Your task to perform on an android device: Open Youtube and go to "Your channel" Image 0: 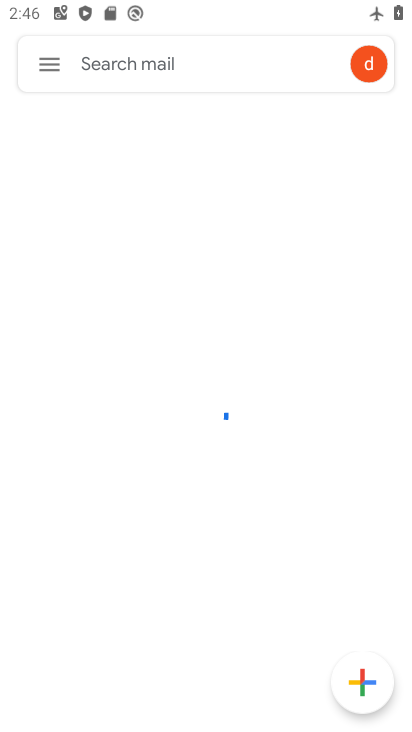
Step 0: drag from (384, 3) to (384, 256)
Your task to perform on an android device: Open Youtube and go to "Your channel" Image 1: 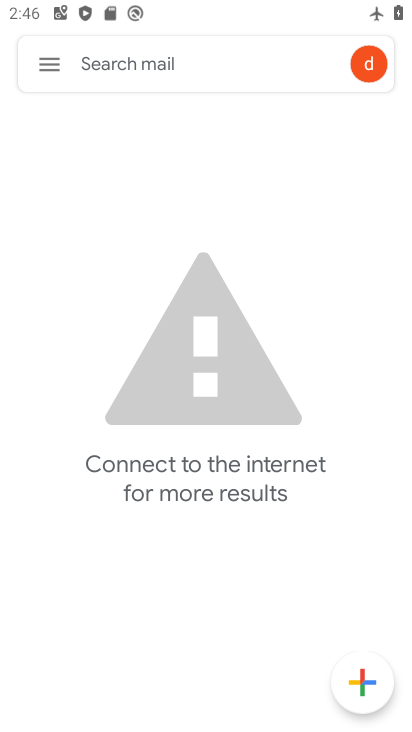
Step 1: drag from (377, 3) to (270, 624)
Your task to perform on an android device: Open Youtube and go to "Your channel" Image 2: 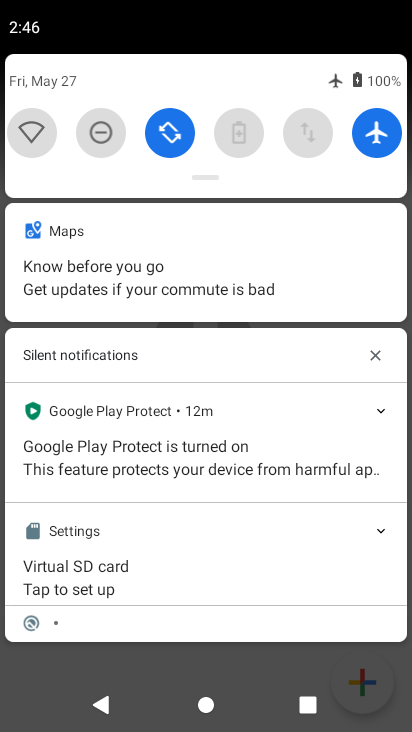
Step 2: click (362, 133)
Your task to perform on an android device: Open Youtube and go to "Your channel" Image 3: 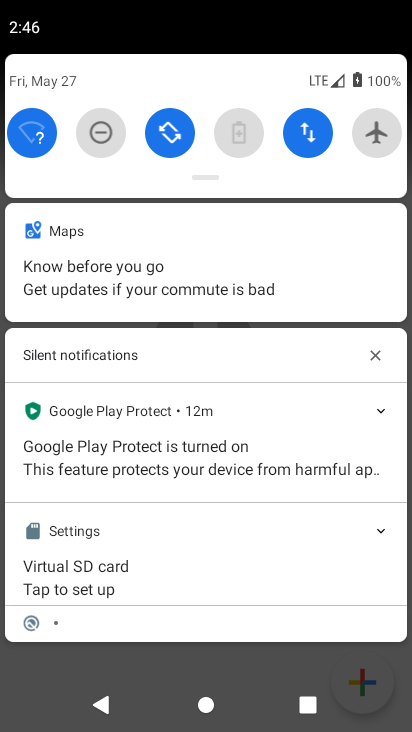
Step 3: press home button
Your task to perform on an android device: Open Youtube and go to "Your channel" Image 4: 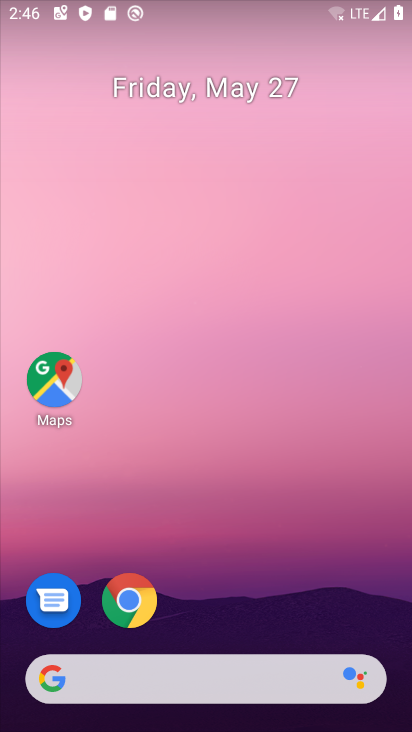
Step 4: drag from (275, 504) to (224, 95)
Your task to perform on an android device: Open Youtube and go to "Your channel" Image 5: 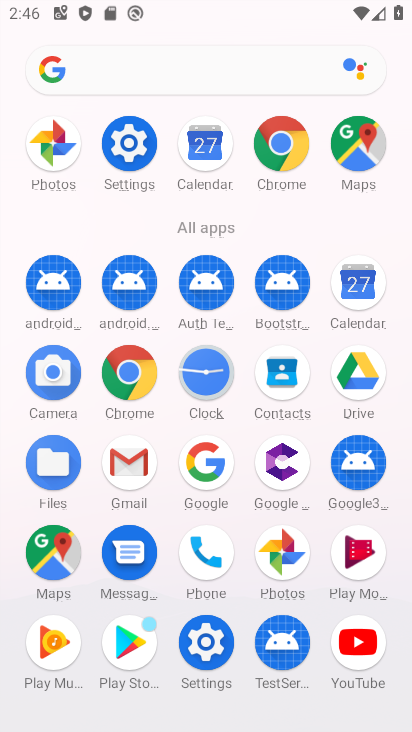
Step 5: click (374, 649)
Your task to perform on an android device: Open Youtube and go to "Your channel" Image 6: 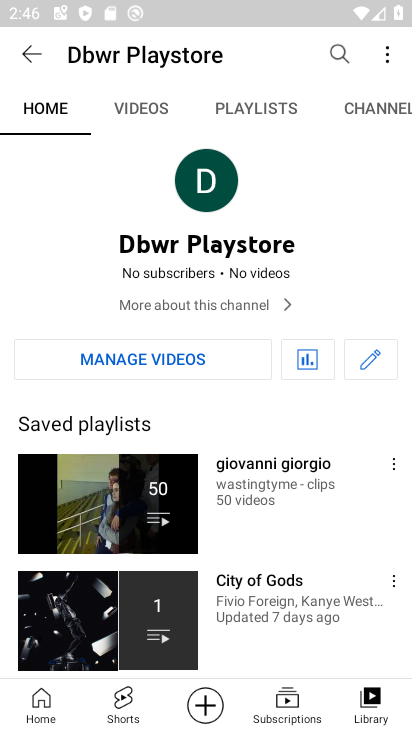
Step 6: click (363, 687)
Your task to perform on an android device: Open Youtube and go to "Your channel" Image 7: 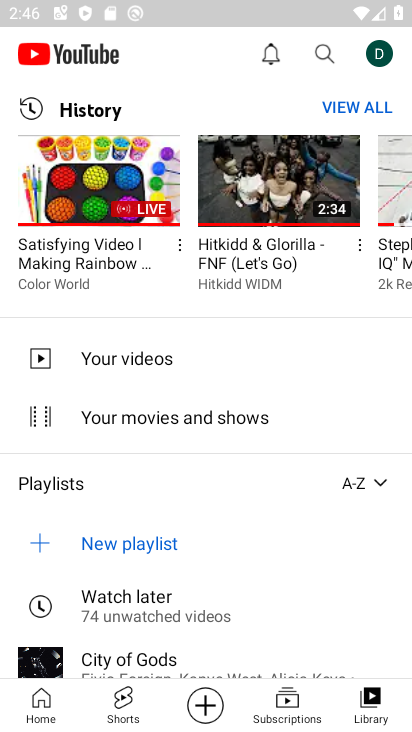
Step 7: click (389, 51)
Your task to perform on an android device: Open Youtube and go to "Your channel" Image 8: 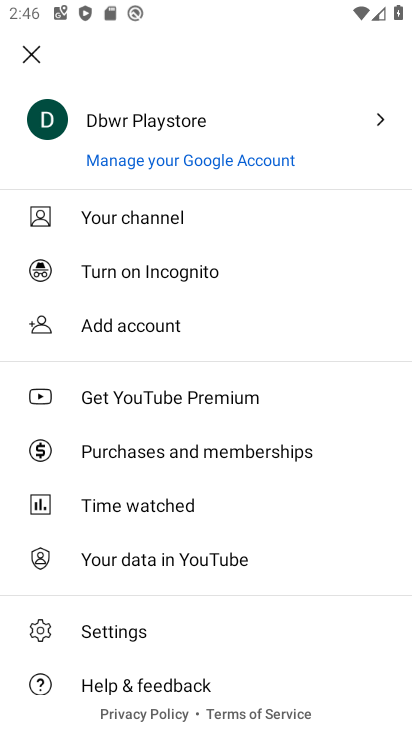
Step 8: click (183, 219)
Your task to perform on an android device: Open Youtube and go to "Your channel" Image 9: 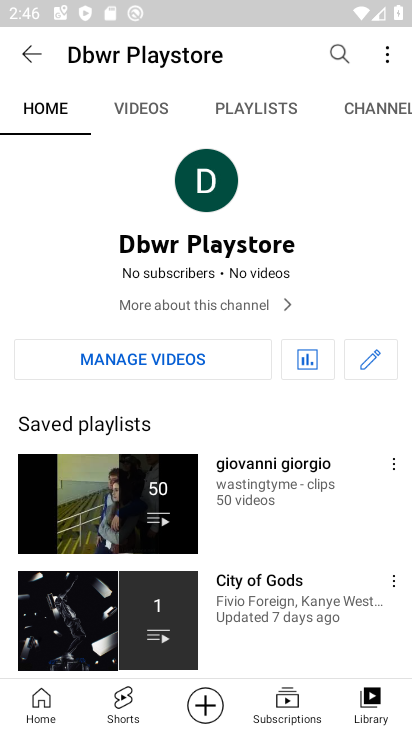
Step 9: task complete